Your task to perform on an android device: open app "Roku - Official Remote Control" (install if not already installed) and enter user name: "autumnal@gmail.com" and password: "stuffing" Image 0: 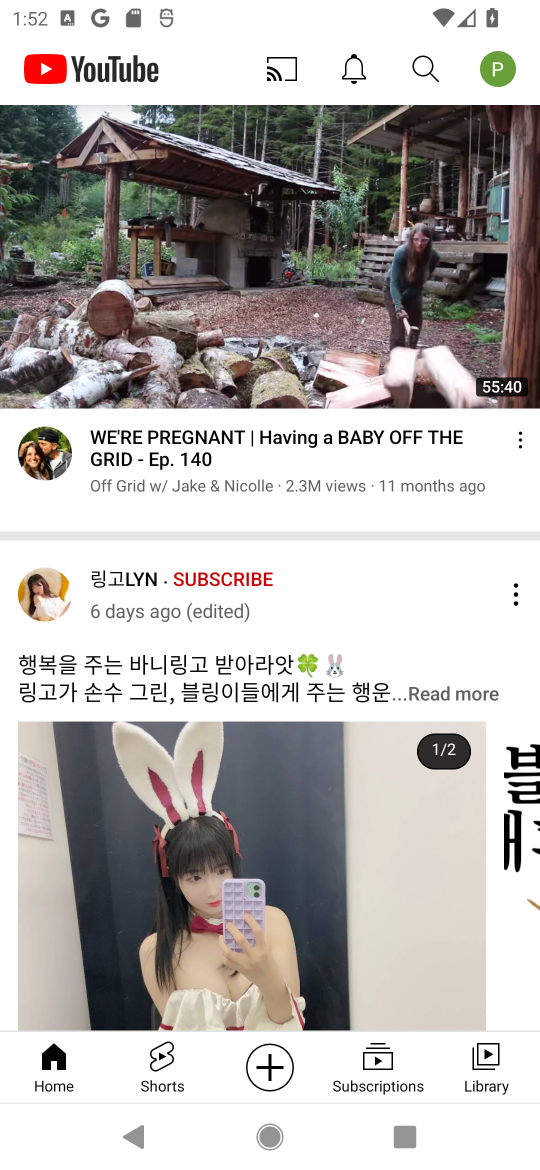
Step 0: press back button
Your task to perform on an android device: open app "Roku - Official Remote Control" (install if not already installed) and enter user name: "autumnal@gmail.com" and password: "stuffing" Image 1: 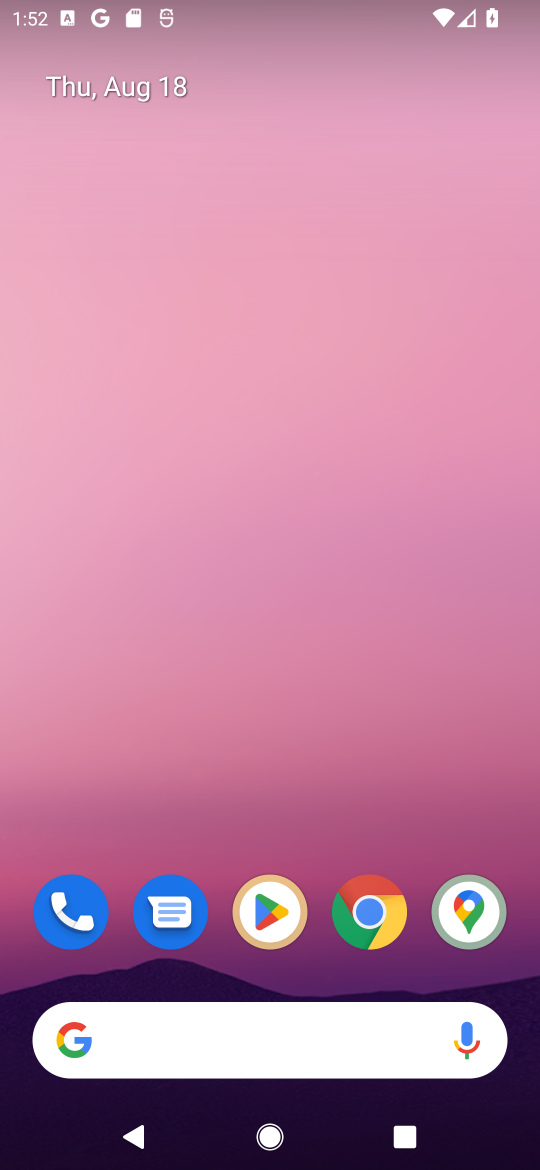
Step 1: click (261, 921)
Your task to perform on an android device: open app "Roku - Official Remote Control" (install if not already installed) and enter user name: "autumnal@gmail.com" and password: "stuffing" Image 2: 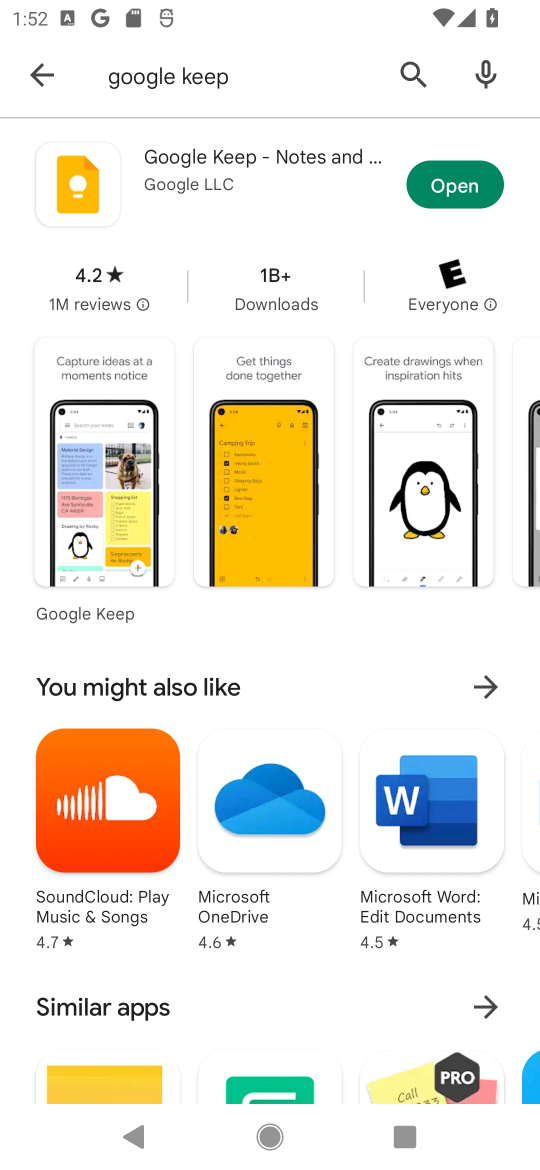
Step 2: click (409, 70)
Your task to perform on an android device: open app "Roku - Official Remote Control" (install if not already installed) and enter user name: "autumnal@gmail.com" and password: "stuffing" Image 3: 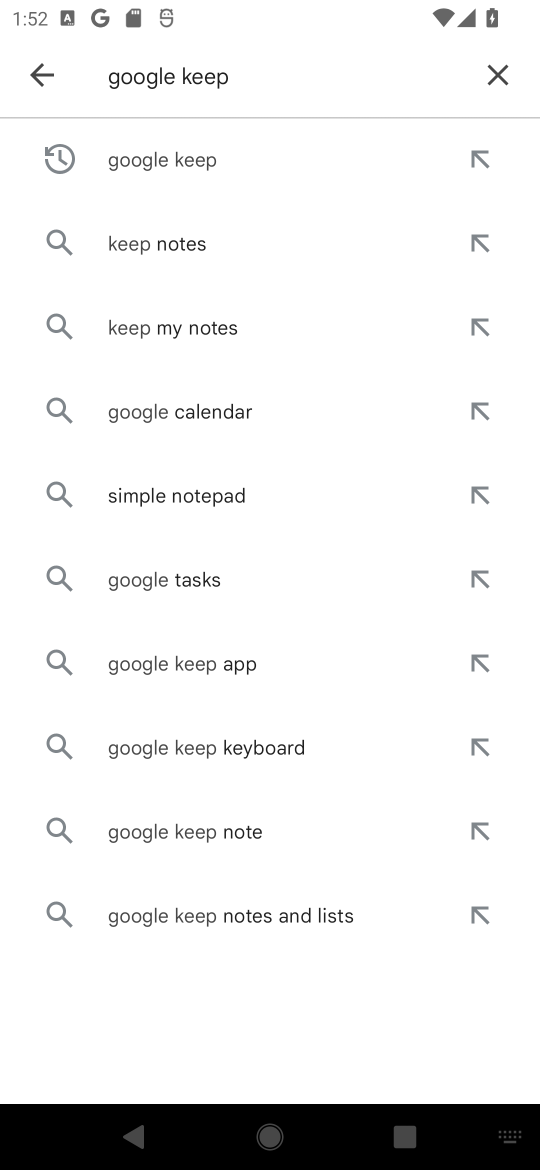
Step 3: click (477, 77)
Your task to perform on an android device: open app "Roku - Official Remote Control" (install if not already installed) and enter user name: "autumnal@gmail.com" and password: "stuffing" Image 4: 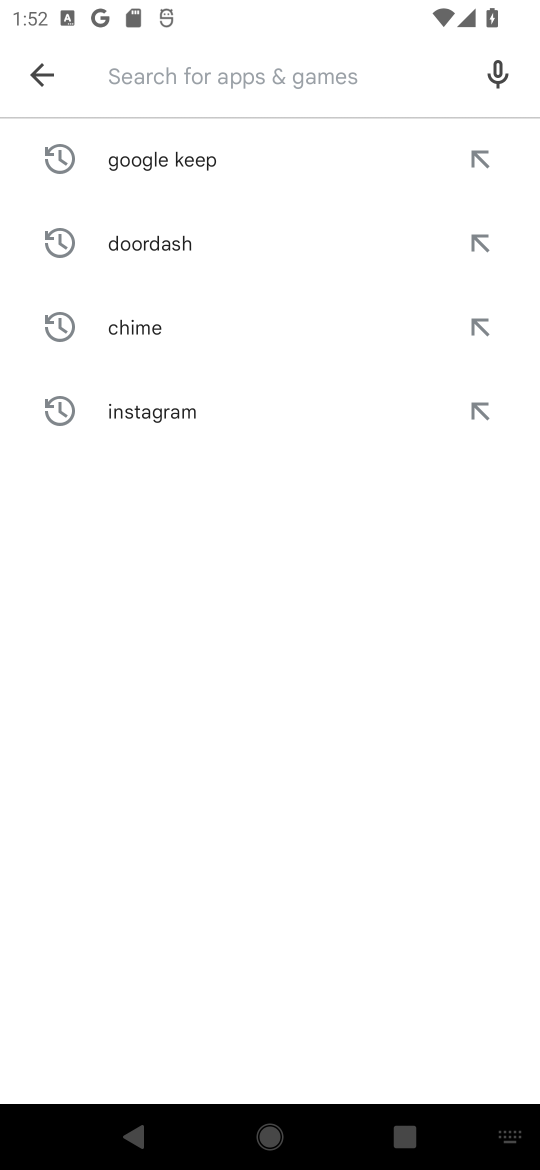
Step 4: type "roku"
Your task to perform on an android device: open app "Roku - Official Remote Control" (install if not already installed) and enter user name: "autumnal@gmail.com" and password: "stuffing" Image 5: 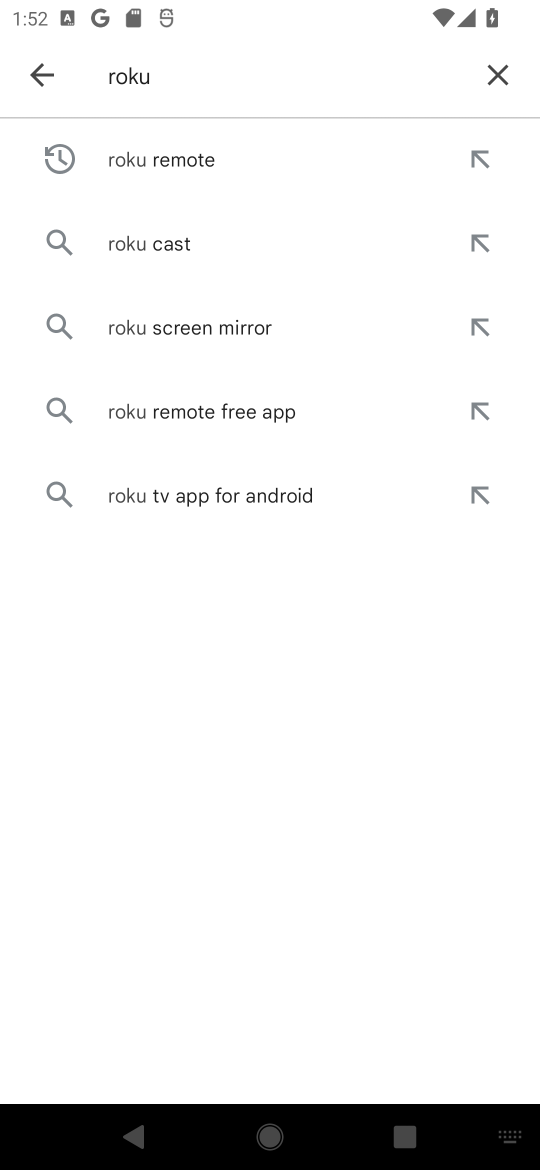
Step 5: click (183, 157)
Your task to perform on an android device: open app "Roku - Official Remote Control" (install if not already installed) and enter user name: "autumnal@gmail.com" and password: "stuffing" Image 6: 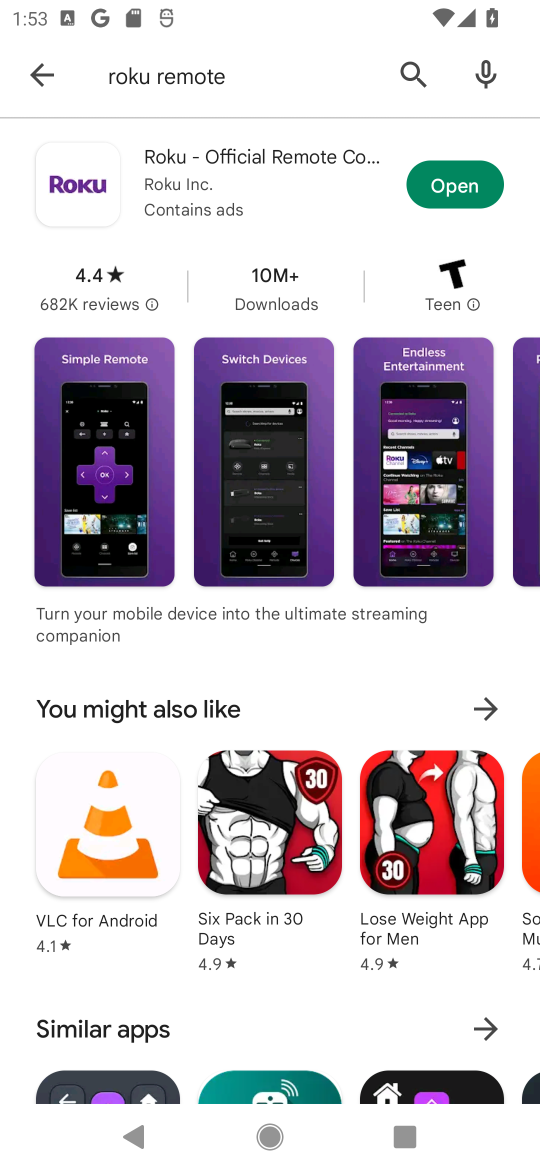
Step 6: click (464, 185)
Your task to perform on an android device: open app "Roku - Official Remote Control" (install if not already installed) and enter user name: "autumnal@gmail.com" and password: "stuffing" Image 7: 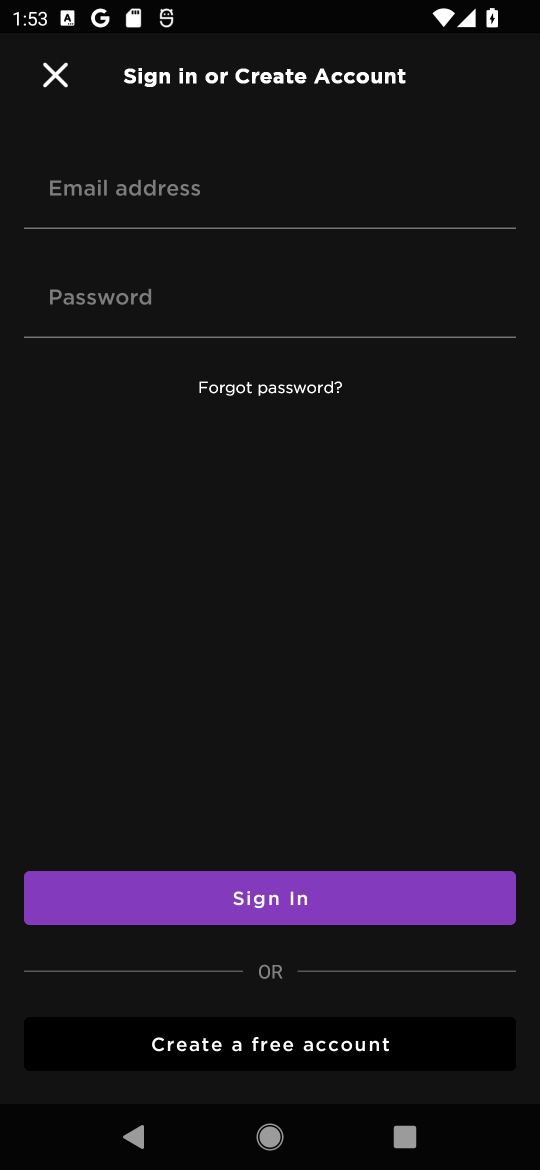
Step 7: click (146, 195)
Your task to perform on an android device: open app "Roku - Official Remote Control" (install if not already installed) and enter user name: "autumnal@gmail.com" and password: "stuffing" Image 8: 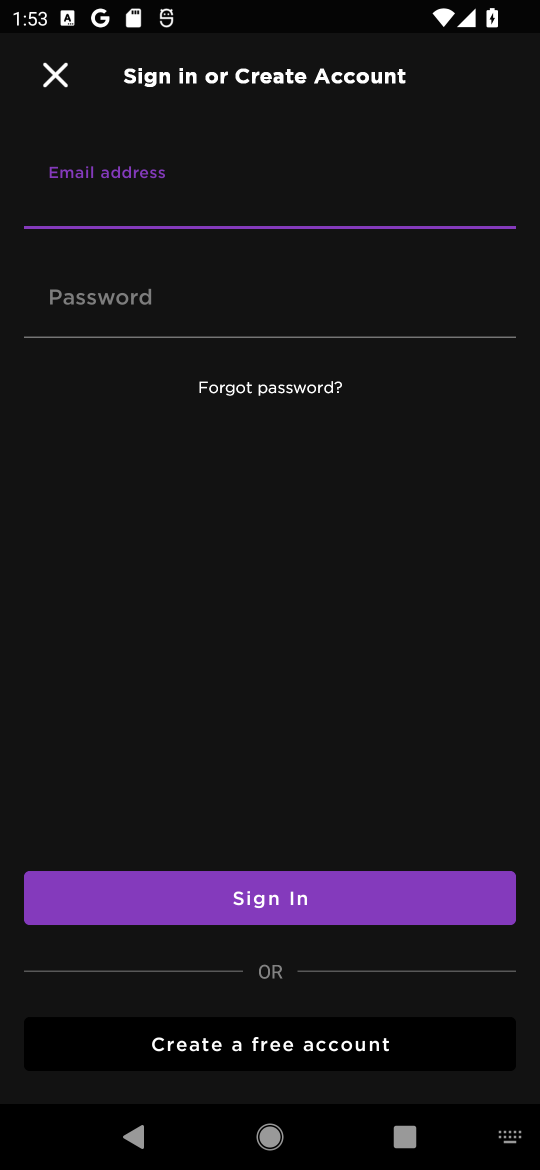
Step 8: click (148, 182)
Your task to perform on an android device: open app "Roku - Official Remote Control" (install if not already installed) and enter user name: "autumnal@gmail.com" and password: "stuffing" Image 9: 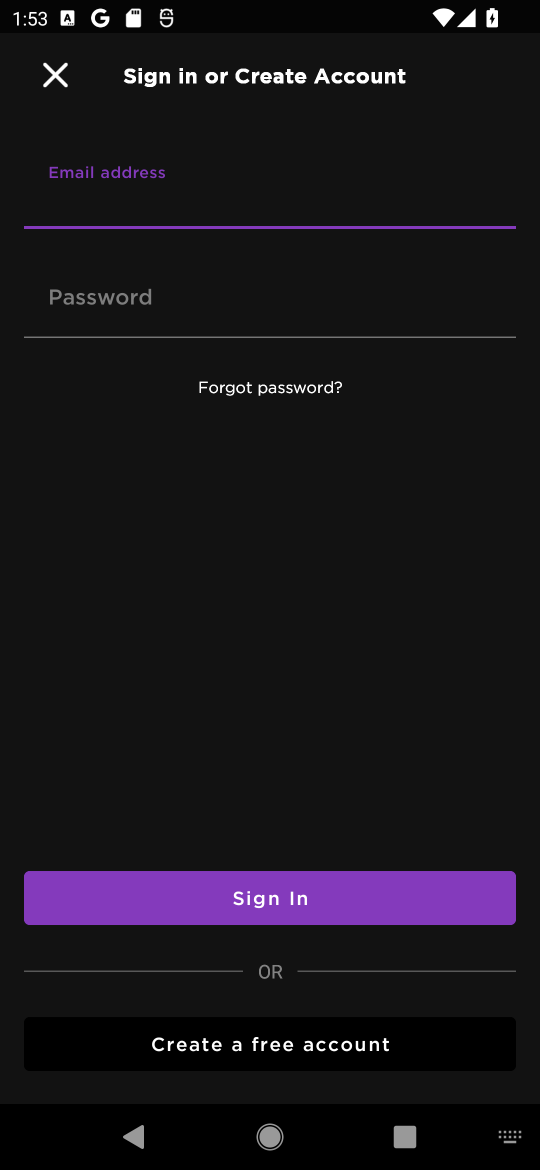
Step 9: type "autumnal@gmail.com"
Your task to perform on an android device: open app "Roku - Official Remote Control" (install if not already installed) and enter user name: "autumnal@gmail.com" and password: "stuffing" Image 10: 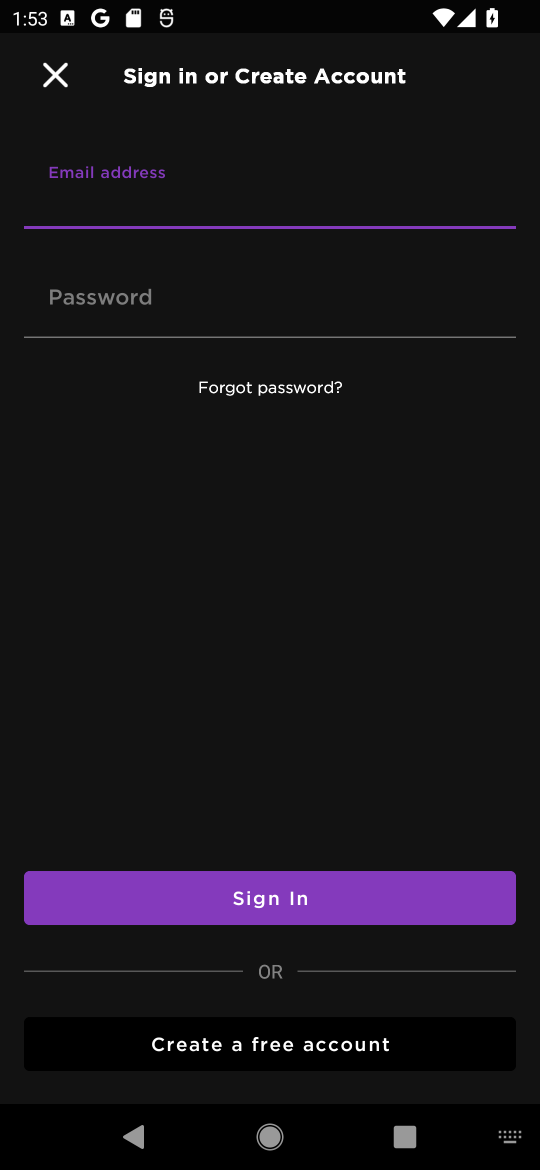
Step 10: click (402, 644)
Your task to perform on an android device: open app "Roku - Official Remote Control" (install if not already installed) and enter user name: "autumnal@gmail.com" and password: "stuffing" Image 11: 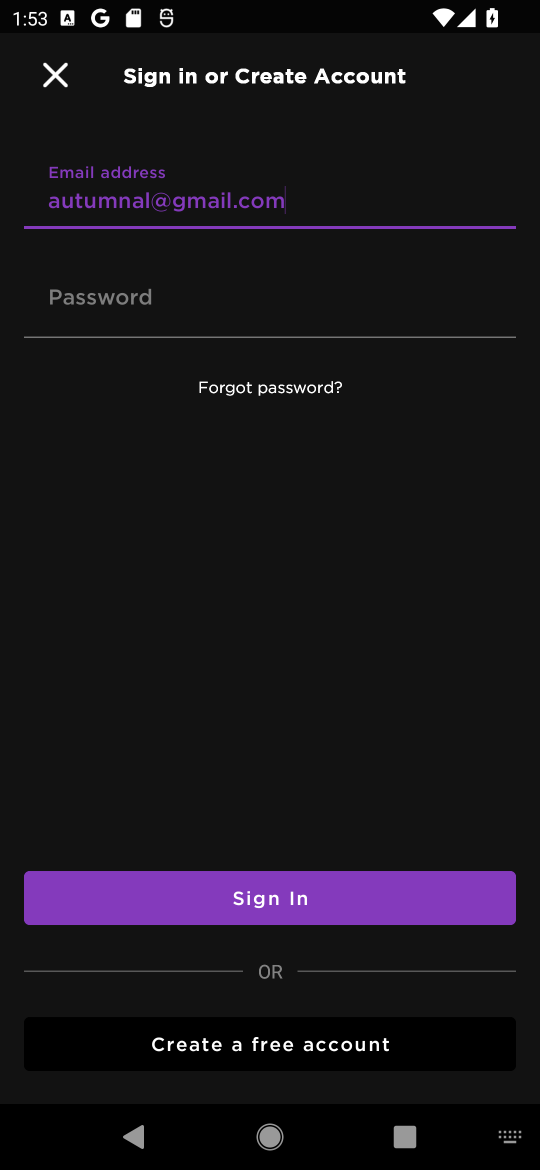
Step 11: click (182, 297)
Your task to perform on an android device: open app "Roku - Official Remote Control" (install if not already installed) and enter user name: "autumnal@gmail.com" and password: "stuffing" Image 12: 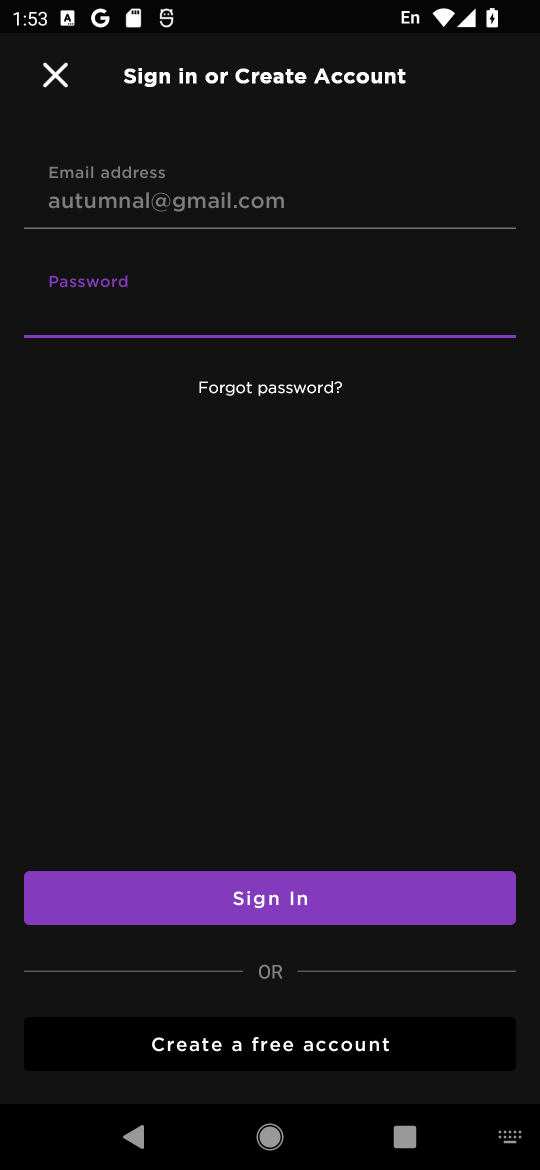
Step 12: type "stuffing"
Your task to perform on an android device: open app "Roku - Official Remote Control" (install if not already installed) and enter user name: "autumnal@gmail.com" and password: "stuffing" Image 13: 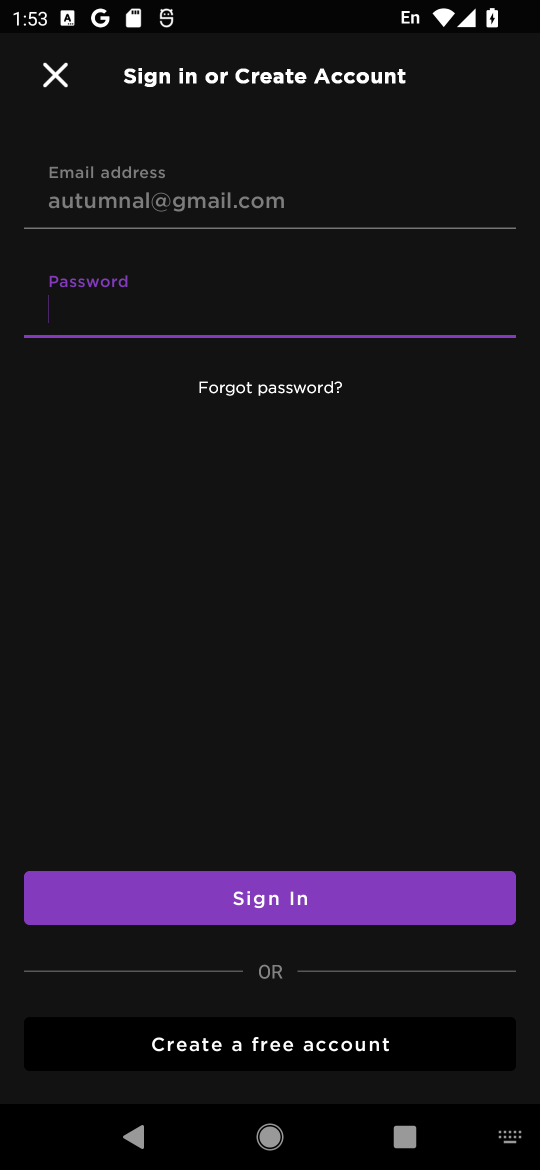
Step 13: click (330, 572)
Your task to perform on an android device: open app "Roku - Official Remote Control" (install if not already installed) and enter user name: "autumnal@gmail.com" and password: "stuffing" Image 14: 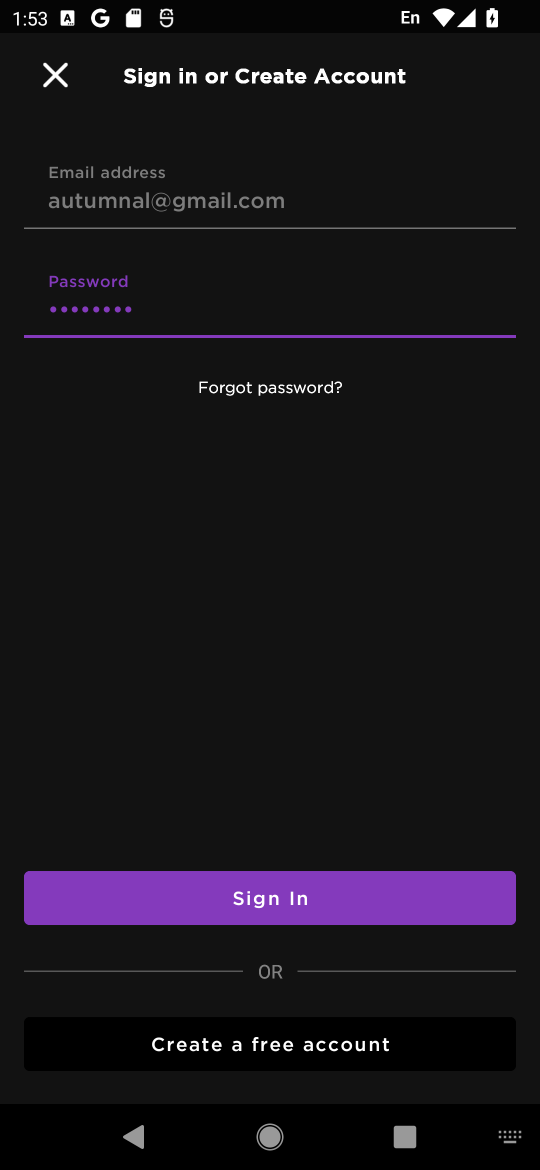
Step 14: task complete